Your task to perform on an android device: toggle priority inbox in the gmail app Image 0: 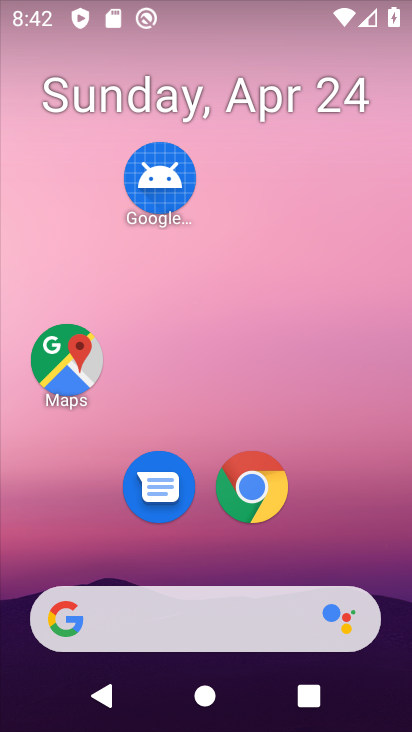
Step 0: drag from (319, 424) to (323, 57)
Your task to perform on an android device: toggle priority inbox in the gmail app Image 1: 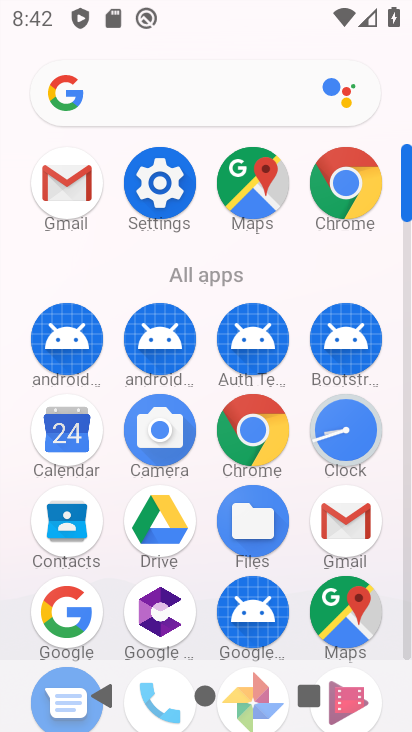
Step 1: click (359, 531)
Your task to perform on an android device: toggle priority inbox in the gmail app Image 2: 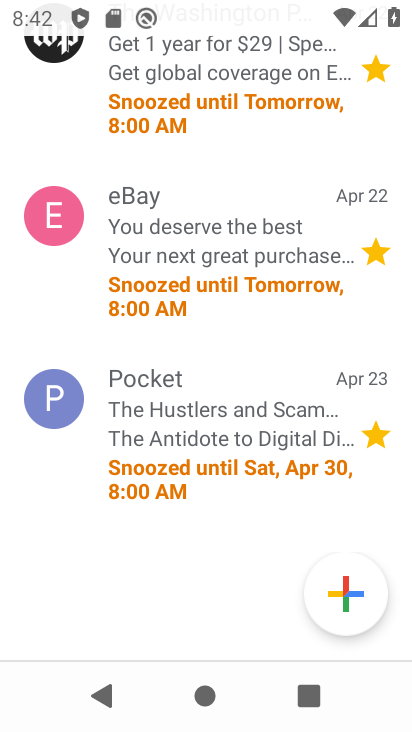
Step 2: drag from (78, 227) to (57, 560)
Your task to perform on an android device: toggle priority inbox in the gmail app Image 3: 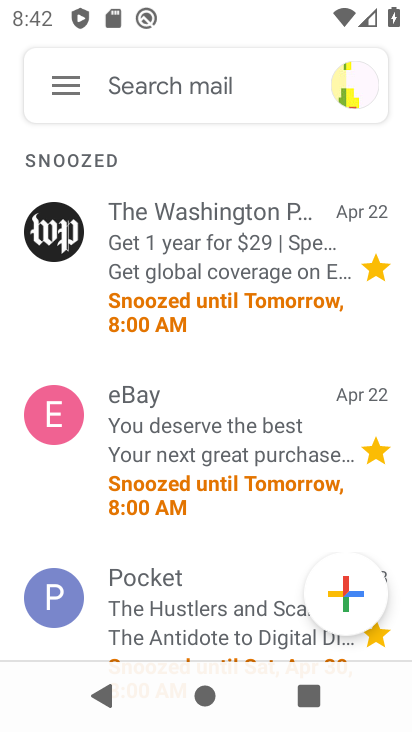
Step 3: click (63, 89)
Your task to perform on an android device: toggle priority inbox in the gmail app Image 4: 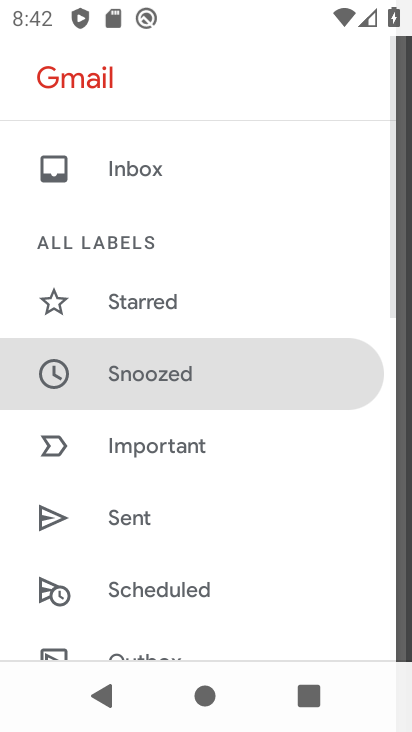
Step 4: drag from (181, 594) to (186, 119)
Your task to perform on an android device: toggle priority inbox in the gmail app Image 5: 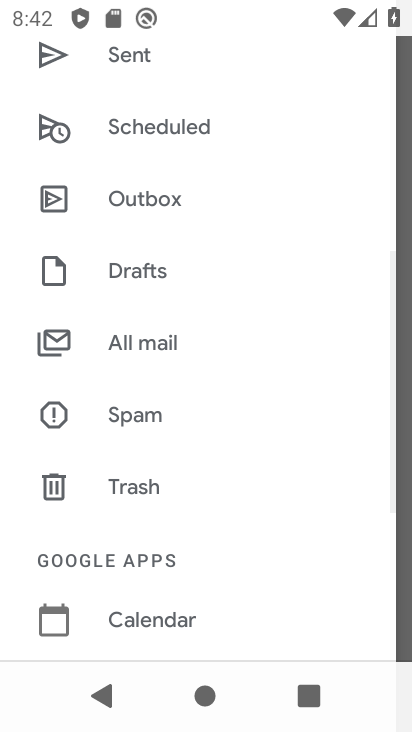
Step 5: drag from (224, 585) to (228, 267)
Your task to perform on an android device: toggle priority inbox in the gmail app Image 6: 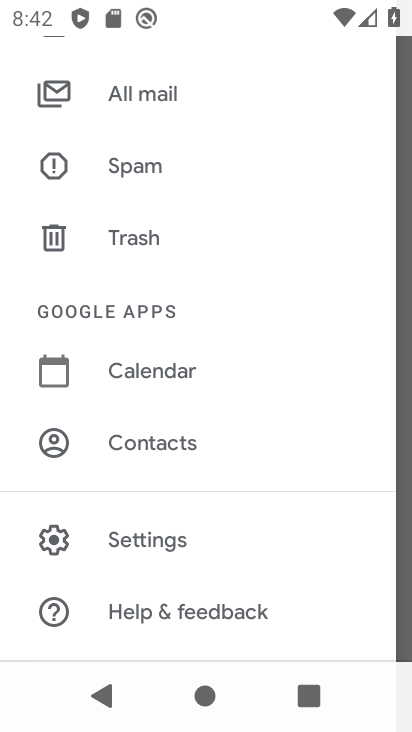
Step 6: click (157, 536)
Your task to perform on an android device: toggle priority inbox in the gmail app Image 7: 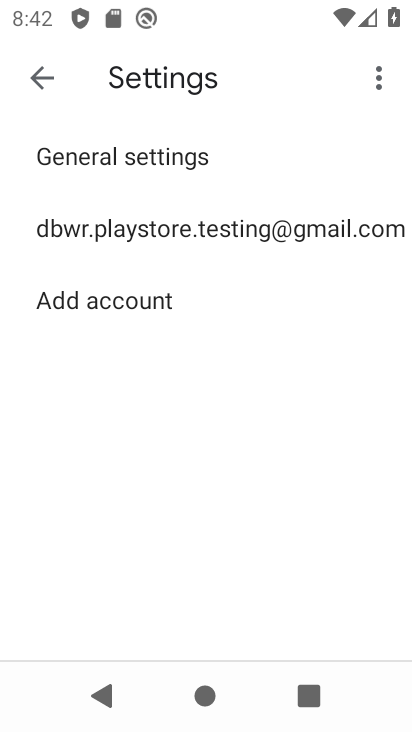
Step 7: click (176, 236)
Your task to perform on an android device: toggle priority inbox in the gmail app Image 8: 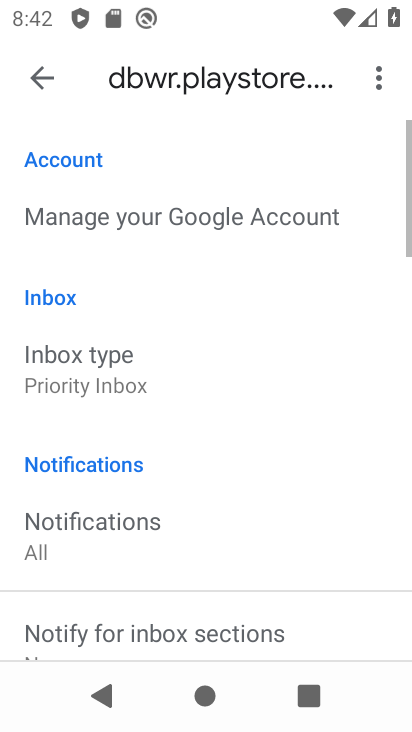
Step 8: click (102, 371)
Your task to perform on an android device: toggle priority inbox in the gmail app Image 9: 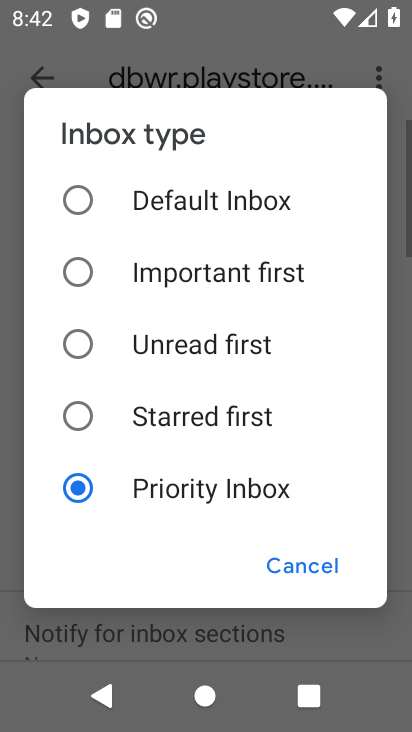
Step 9: click (110, 353)
Your task to perform on an android device: toggle priority inbox in the gmail app Image 10: 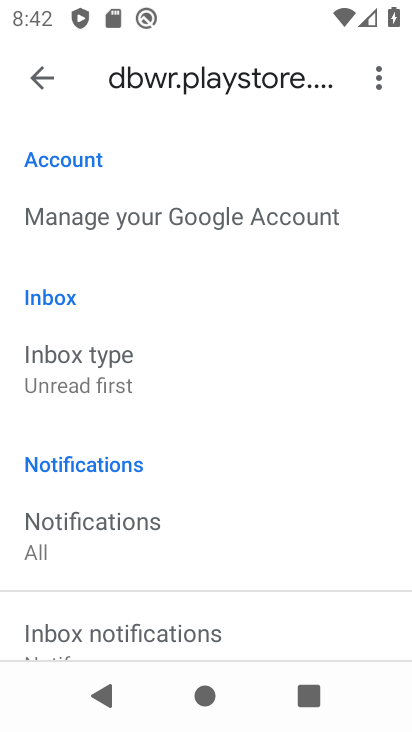
Step 10: task complete